Your task to perform on an android device: check battery use Image 0: 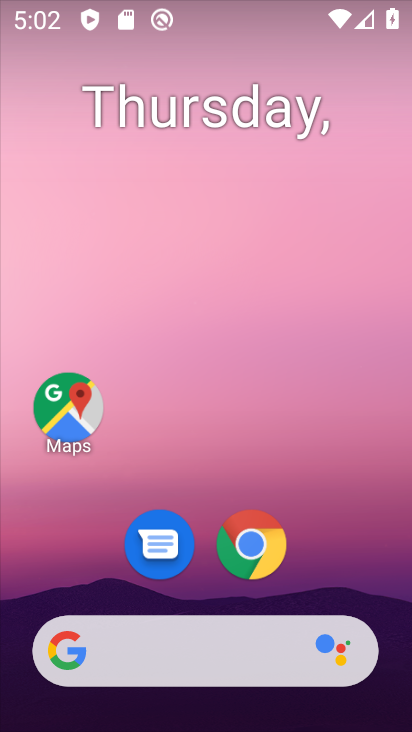
Step 0: drag from (316, 535) to (246, 85)
Your task to perform on an android device: check battery use Image 1: 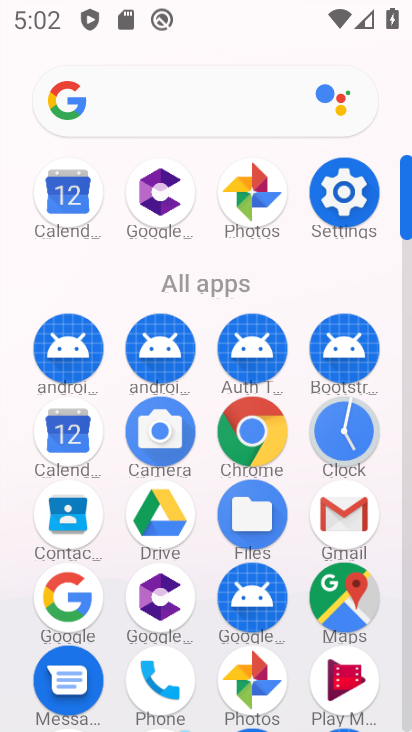
Step 1: click (343, 195)
Your task to perform on an android device: check battery use Image 2: 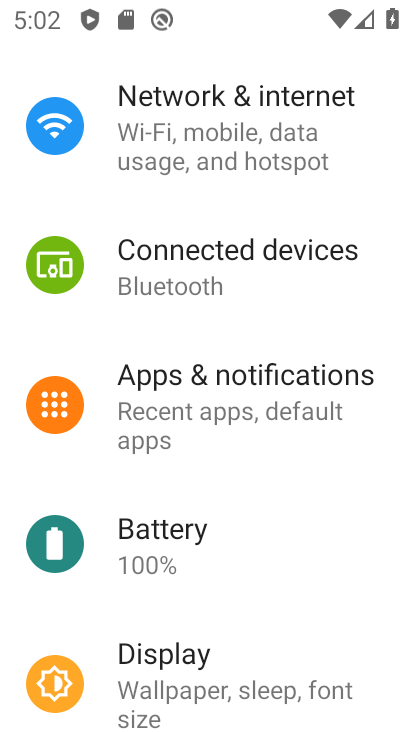
Step 2: drag from (263, 533) to (279, 311)
Your task to perform on an android device: check battery use Image 3: 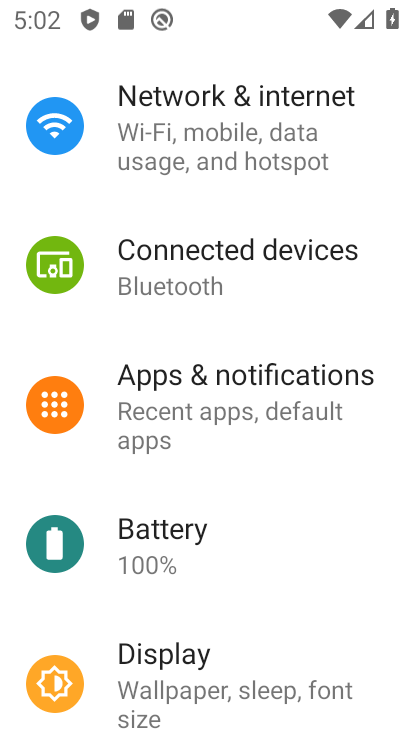
Step 3: click (167, 535)
Your task to perform on an android device: check battery use Image 4: 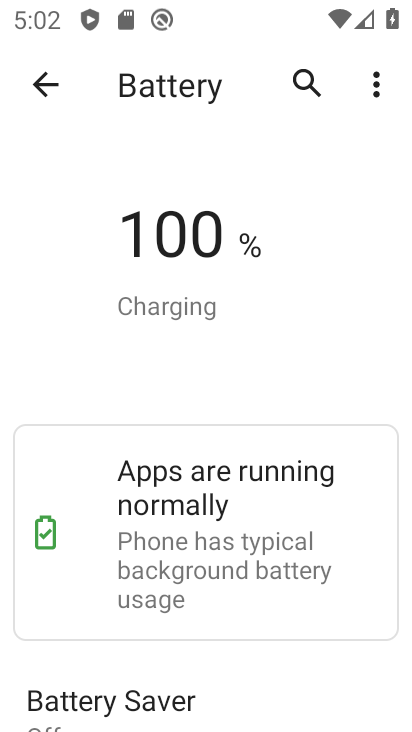
Step 4: click (364, 96)
Your task to perform on an android device: check battery use Image 5: 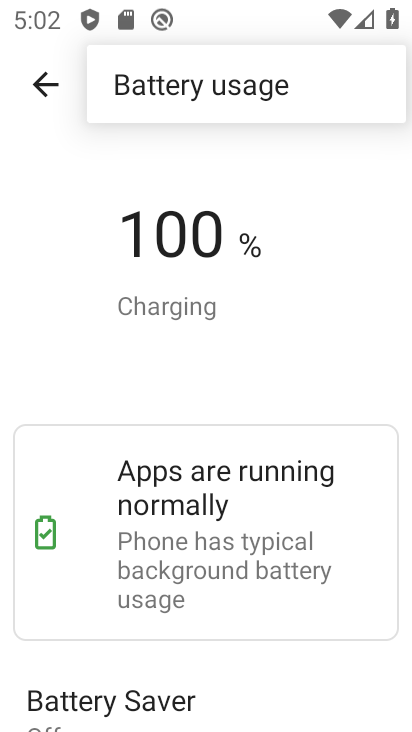
Step 5: click (270, 78)
Your task to perform on an android device: check battery use Image 6: 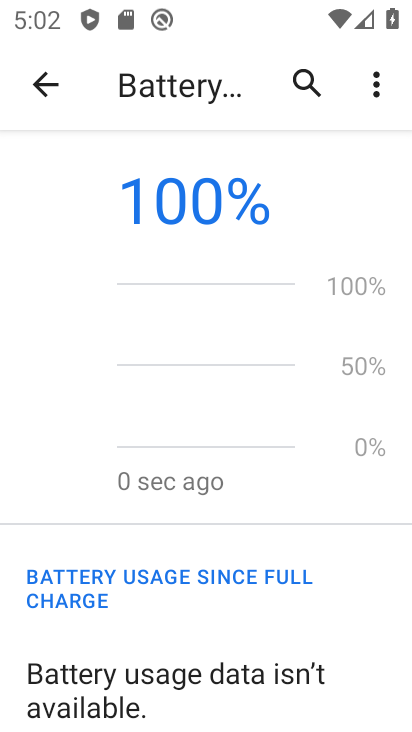
Step 6: task complete